Your task to perform on an android device: turn notification dots on Image 0: 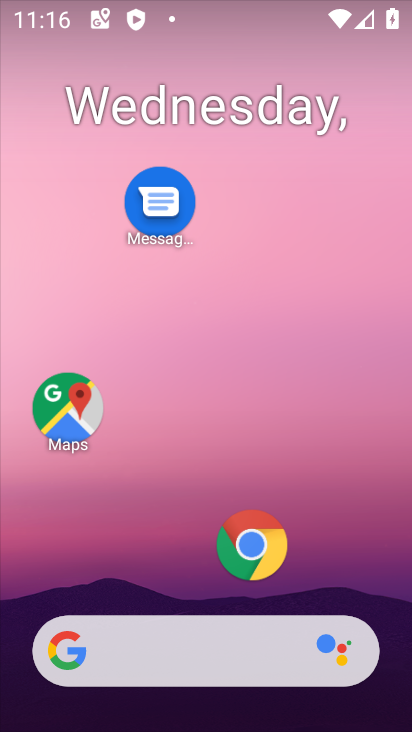
Step 0: drag from (164, 570) to (216, 206)
Your task to perform on an android device: turn notification dots on Image 1: 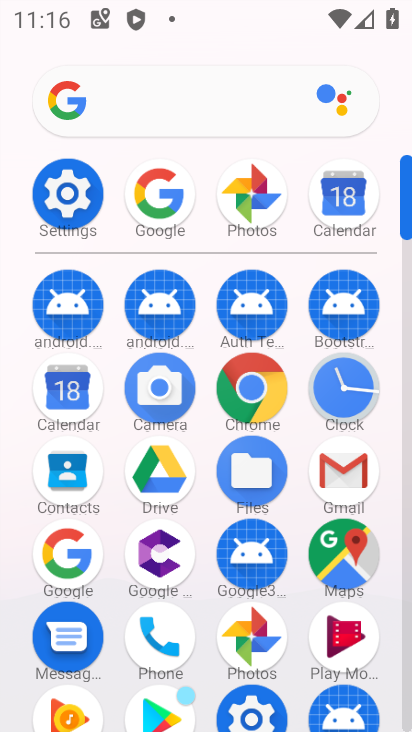
Step 1: click (62, 196)
Your task to perform on an android device: turn notification dots on Image 2: 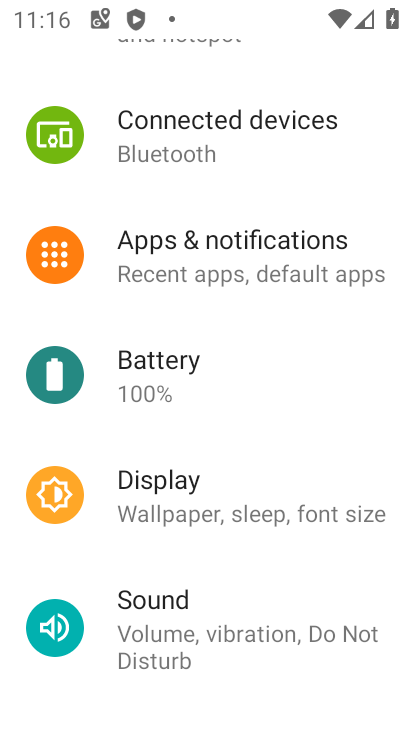
Step 2: click (257, 283)
Your task to perform on an android device: turn notification dots on Image 3: 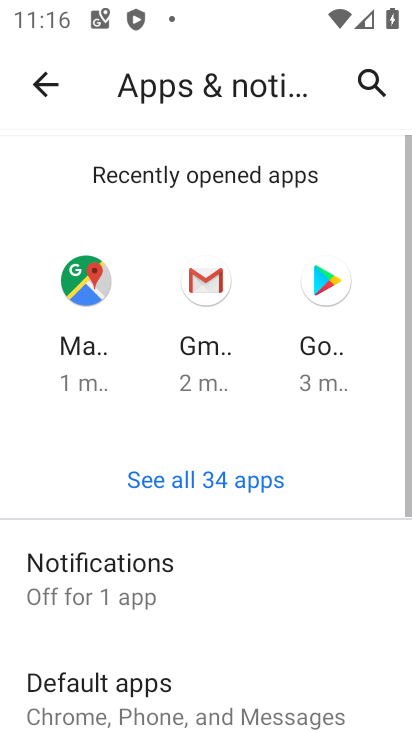
Step 3: click (116, 588)
Your task to perform on an android device: turn notification dots on Image 4: 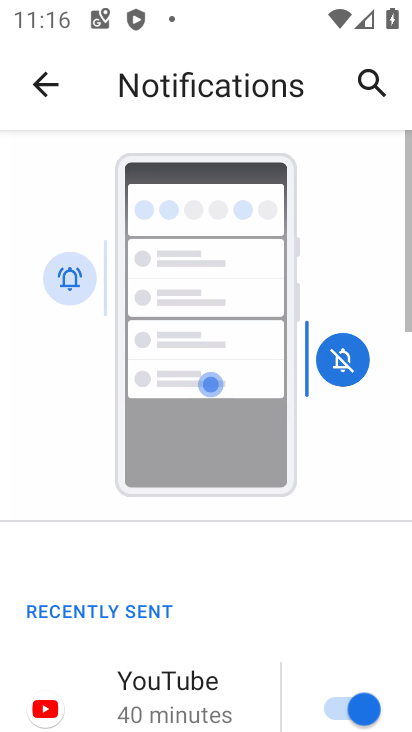
Step 4: drag from (221, 653) to (257, 281)
Your task to perform on an android device: turn notification dots on Image 5: 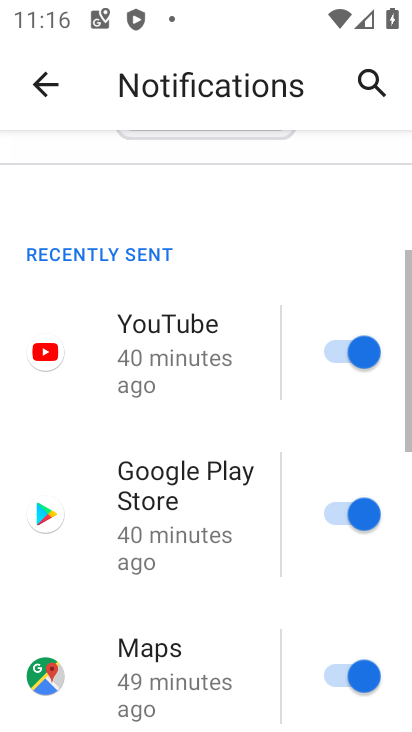
Step 5: drag from (225, 588) to (220, 299)
Your task to perform on an android device: turn notification dots on Image 6: 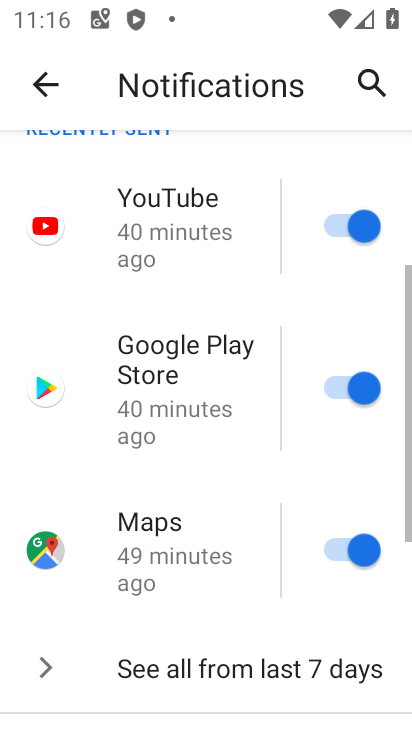
Step 6: drag from (204, 632) to (209, 353)
Your task to perform on an android device: turn notification dots on Image 7: 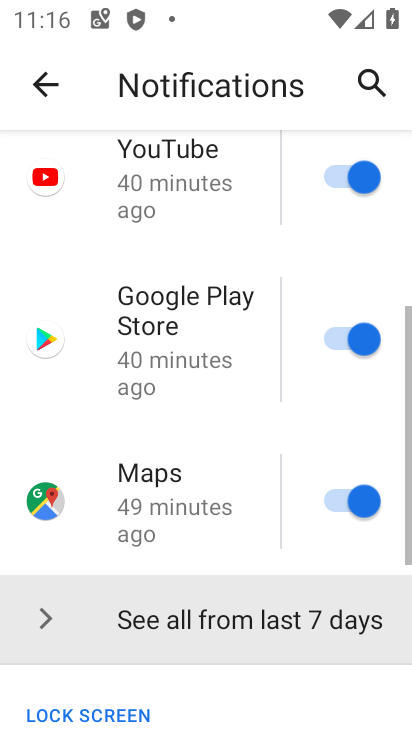
Step 7: drag from (192, 637) to (196, 312)
Your task to perform on an android device: turn notification dots on Image 8: 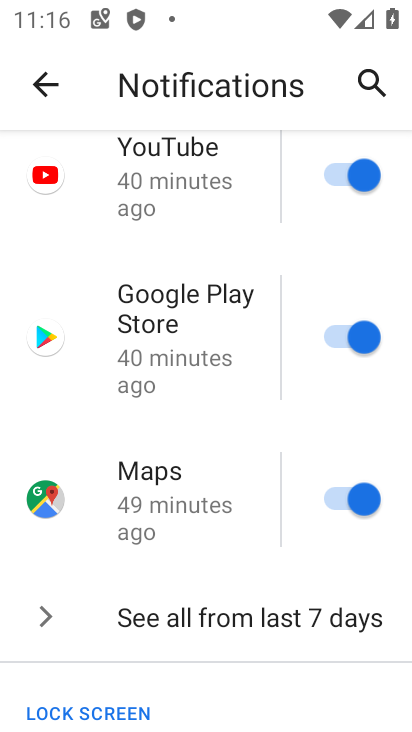
Step 8: drag from (215, 700) to (243, 346)
Your task to perform on an android device: turn notification dots on Image 9: 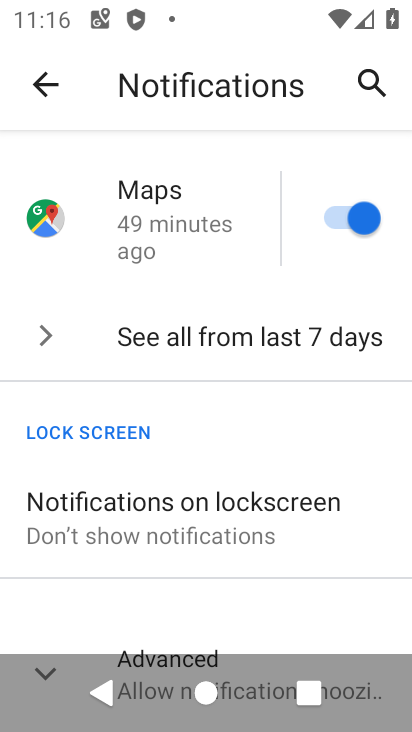
Step 9: drag from (178, 626) to (205, 385)
Your task to perform on an android device: turn notification dots on Image 10: 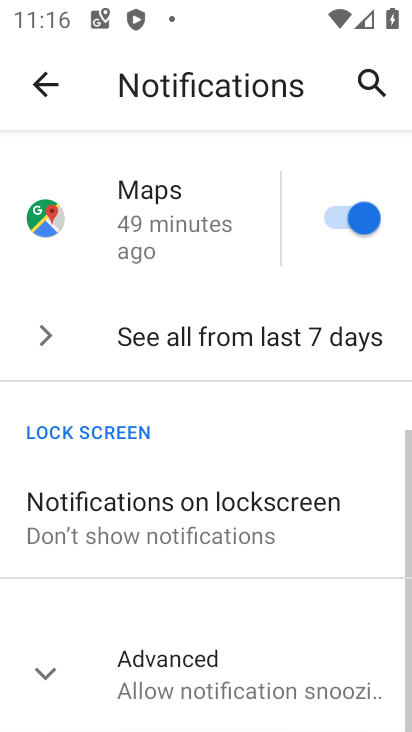
Step 10: click (177, 657)
Your task to perform on an android device: turn notification dots on Image 11: 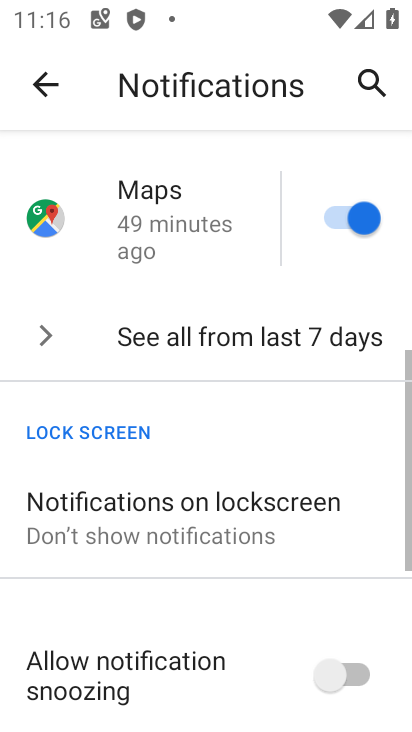
Step 11: task complete